Your task to perform on an android device: What's the weather today? Image 0: 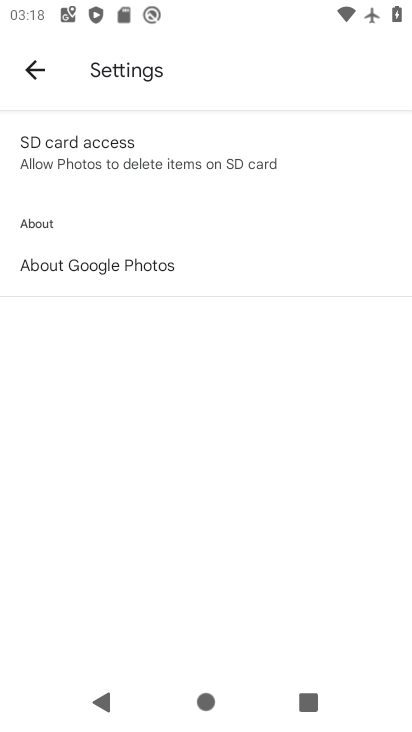
Step 0: click (263, 400)
Your task to perform on an android device: What's the weather today? Image 1: 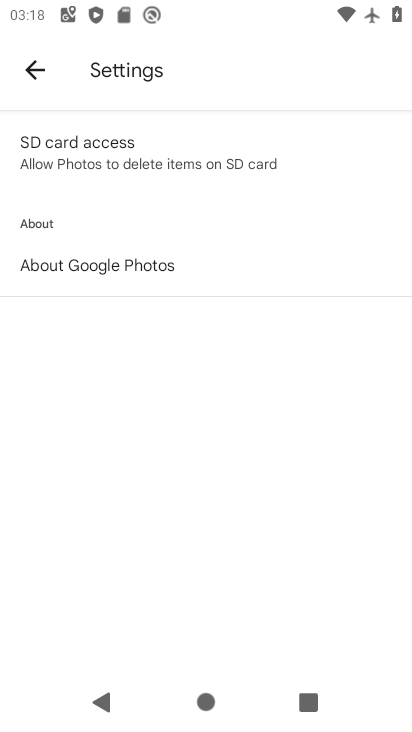
Step 1: press home button
Your task to perform on an android device: What's the weather today? Image 2: 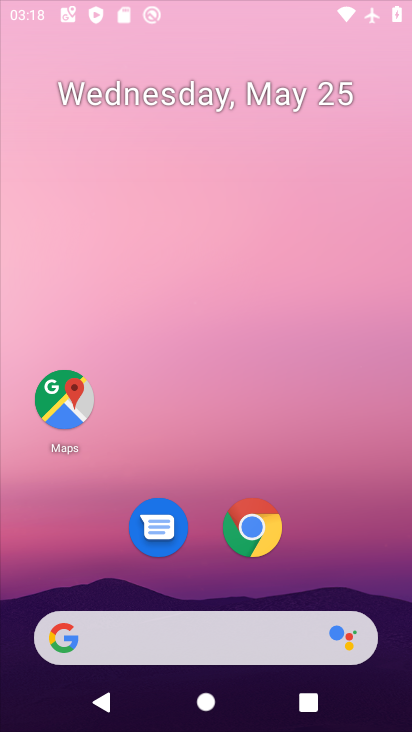
Step 2: drag from (246, 539) to (255, 80)
Your task to perform on an android device: What's the weather today? Image 3: 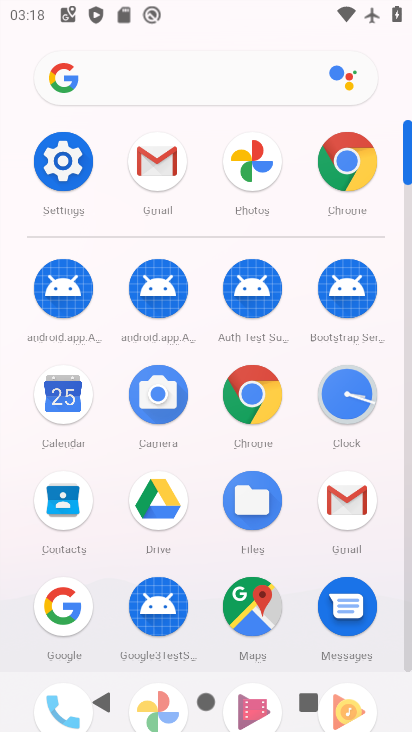
Step 3: click (185, 94)
Your task to perform on an android device: What's the weather today? Image 4: 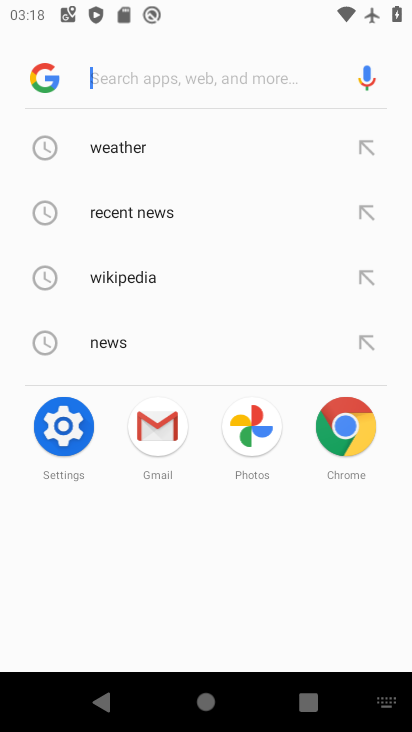
Step 4: click (159, 131)
Your task to perform on an android device: What's the weather today? Image 5: 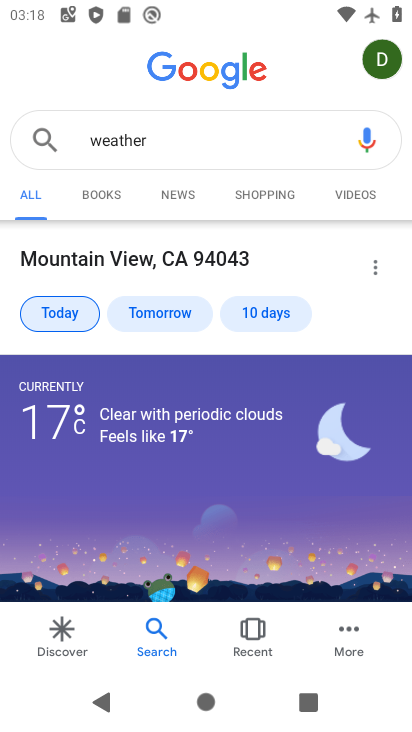
Step 5: task complete